Your task to perform on an android device: Open Google Chrome and open the bookmarks view Image 0: 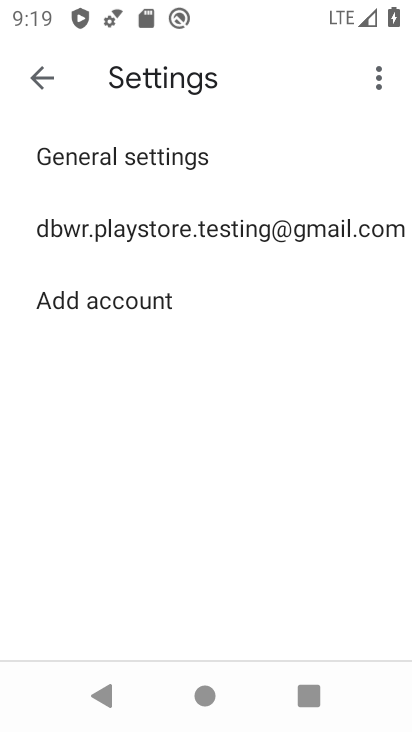
Step 0: press home button
Your task to perform on an android device: Open Google Chrome and open the bookmarks view Image 1: 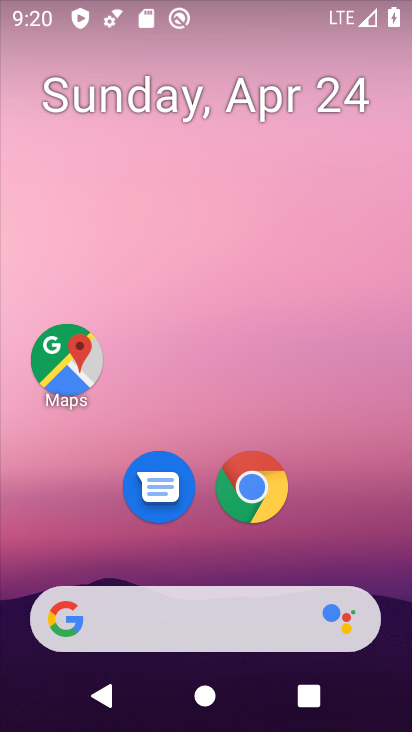
Step 1: click (231, 511)
Your task to perform on an android device: Open Google Chrome and open the bookmarks view Image 2: 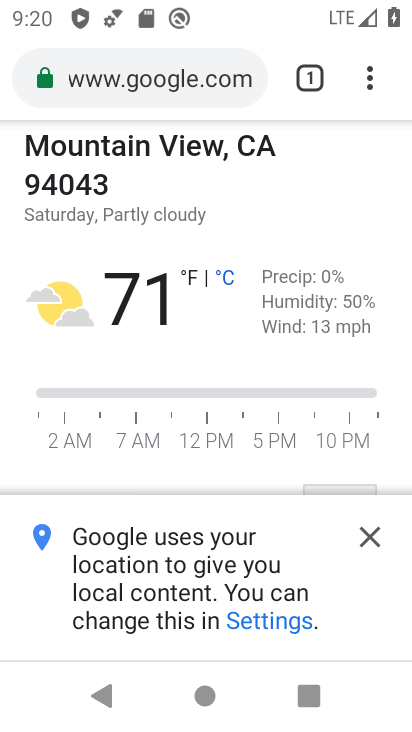
Step 2: task complete